Your task to perform on an android device: toggle notifications settings in the gmail app Image 0: 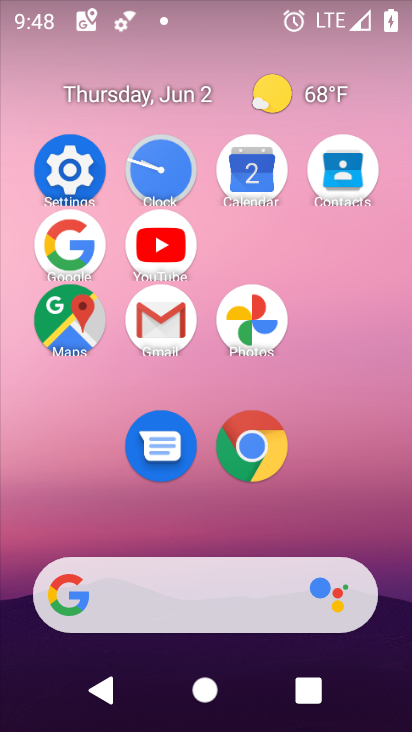
Step 0: click (153, 309)
Your task to perform on an android device: toggle notifications settings in the gmail app Image 1: 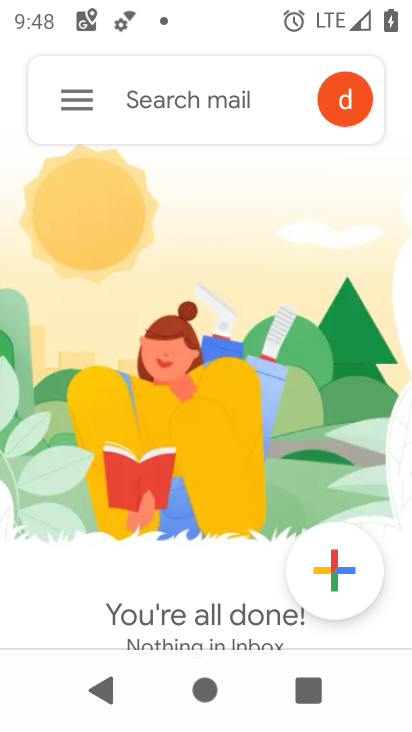
Step 1: click (53, 93)
Your task to perform on an android device: toggle notifications settings in the gmail app Image 2: 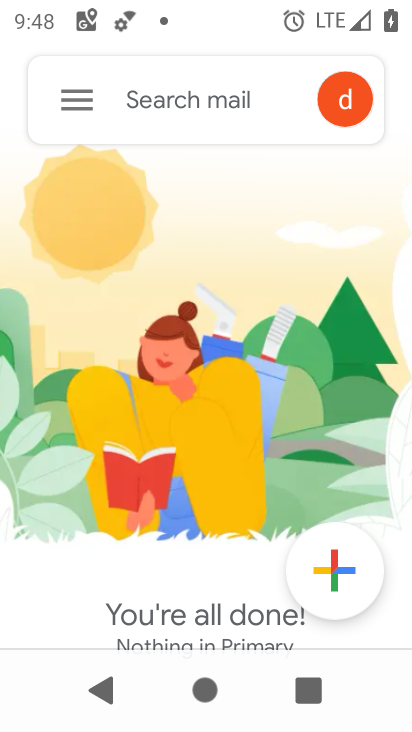
Step 2: click (81, 109)
Your task to perform on an android device: toggle notifications settings in the gmail app Image 3: 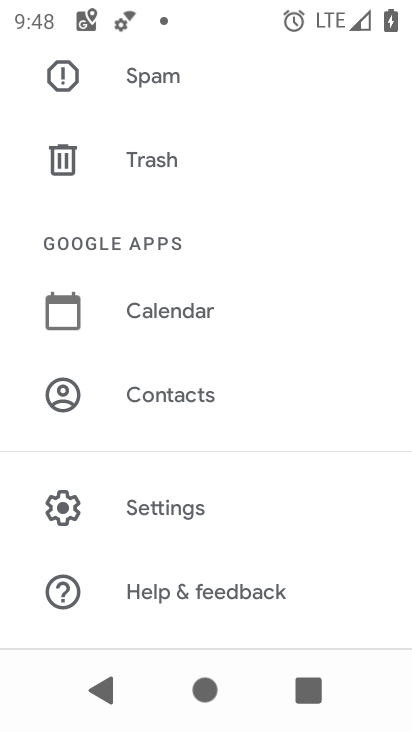
Step 3: click (230, 520)
Your task to perform on an android device: toggle notifications settings in the gmail app Image 4: 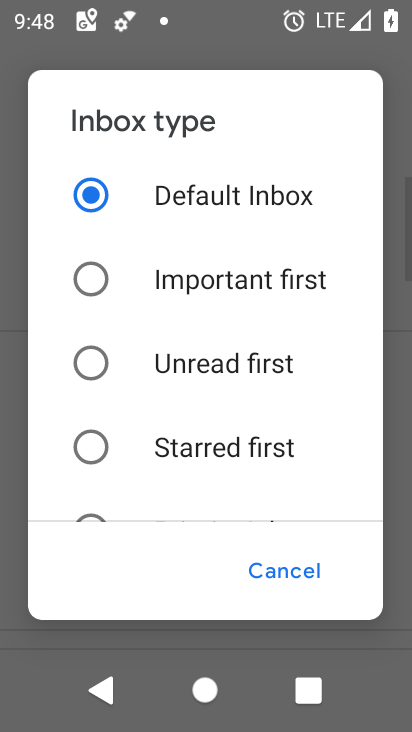
Step 4: click (273, 569)
Your task to perform on an android device: toggle notifications settings in the gmail app Image 5: 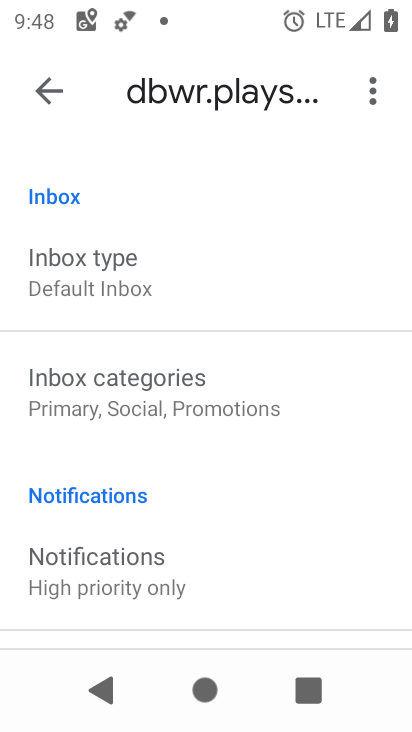
Step 5: click (184, 571)
Your task to perform on an android device: toggle notifications settings in the gmail app Image 6: 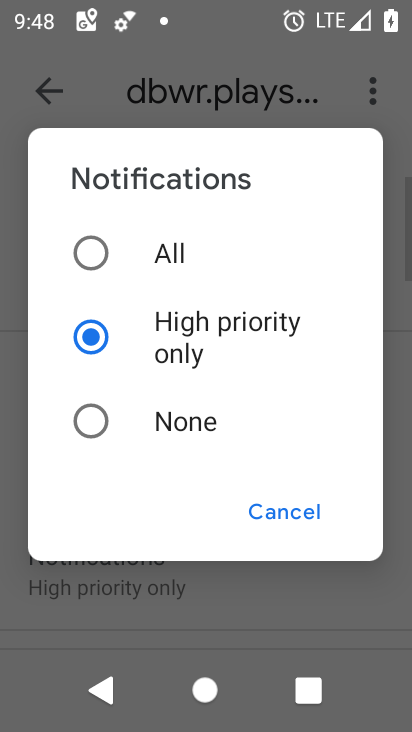
Step 6: click (166, 269)
Your task to perform on an android device: toggle notifications settings in the gmail app Image 7: 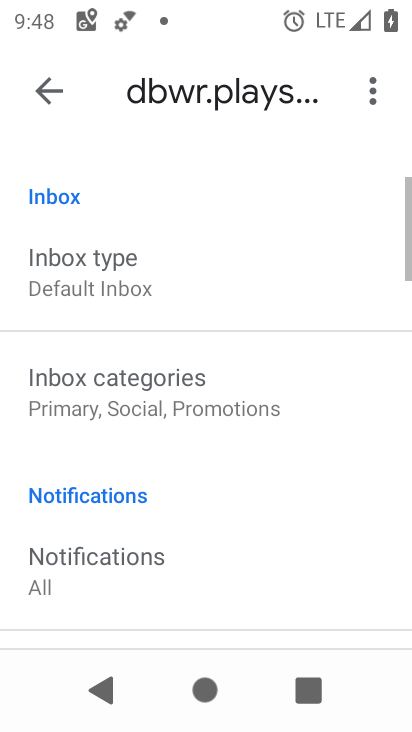
Step 7: task complete